Your task to perform on an android device: find photos in the google photos app Image 0: 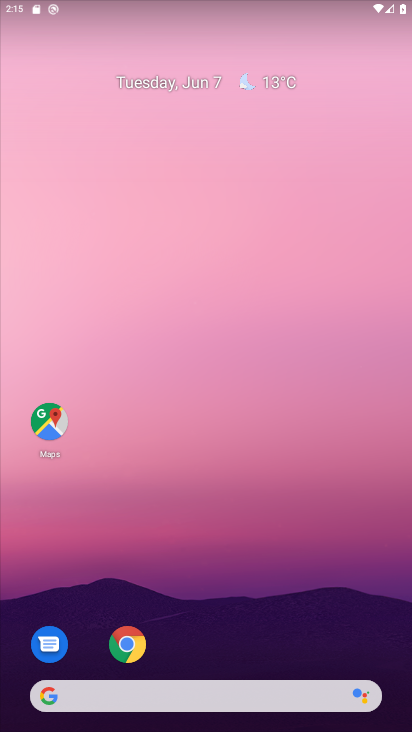
Step 0: press home button
Your task to perform on an android device: find photos in the google photos app Image 1: 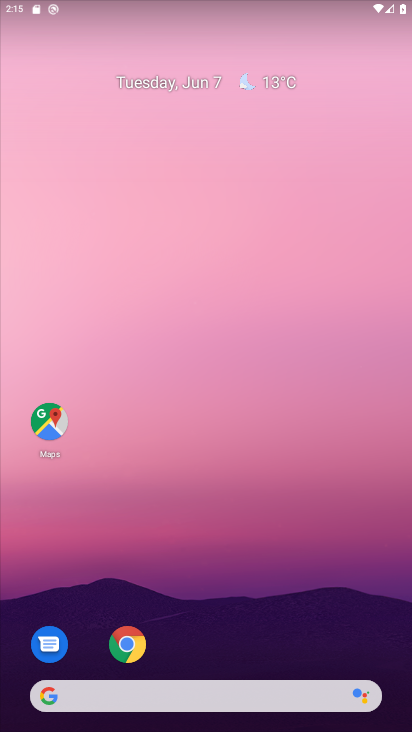
Step 1: drag from (224, 661) to (222, 43)
Your task to perform on an android device: find photos in the google photos app Image 2: 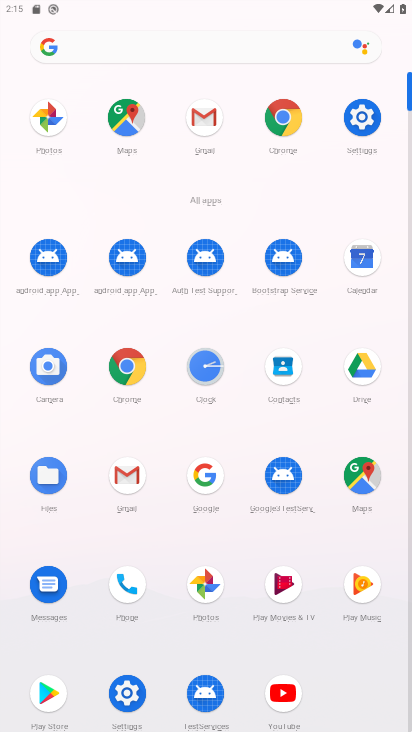
Step 2: click (199, 573)
Your task to perform on an android device: find photos in the google photos app Image 3: 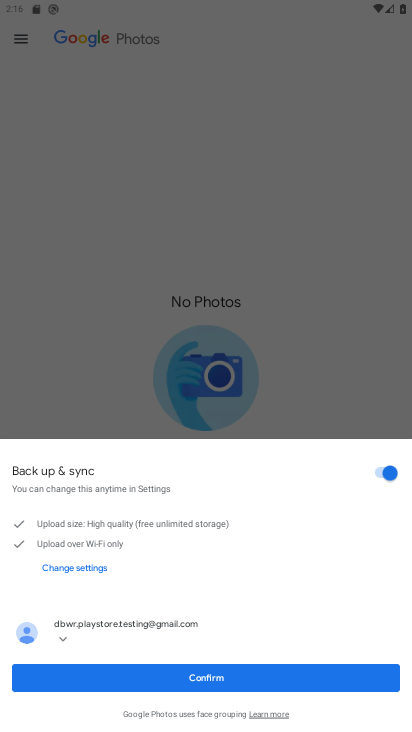
Step 3: click (213, 674)
Your task to perform on an android device: find photos in the google photos app Image 4: 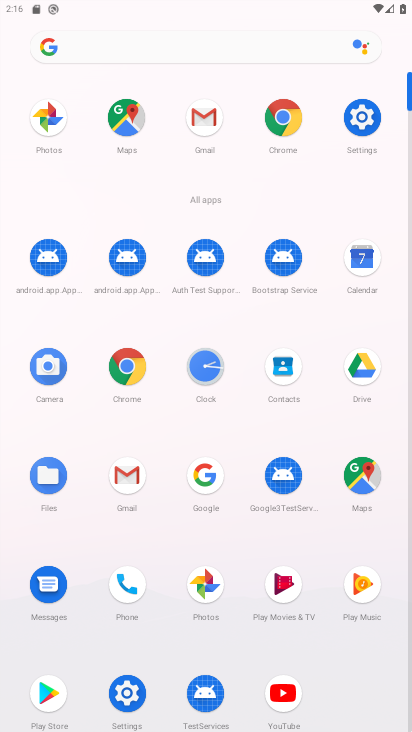
Step 4: click (206, 574)
Your task to perform on an android device: find photos in the google photos app Image 5: 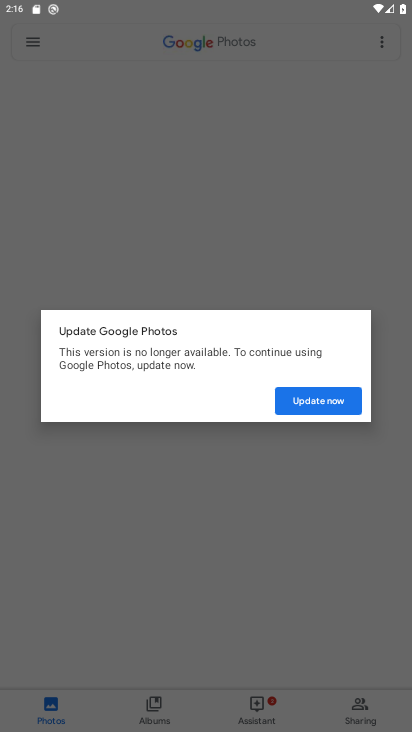
Step 5: click (300, 396)
Your task to perform on an android device: find photos in the google photos app Image 6: 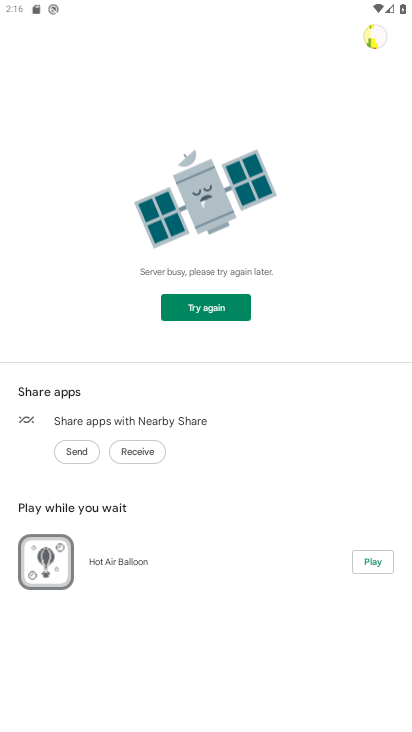
Step 6: click (209, 308)
Your task to perform on an android device: find photos in the google photos app Image 7: 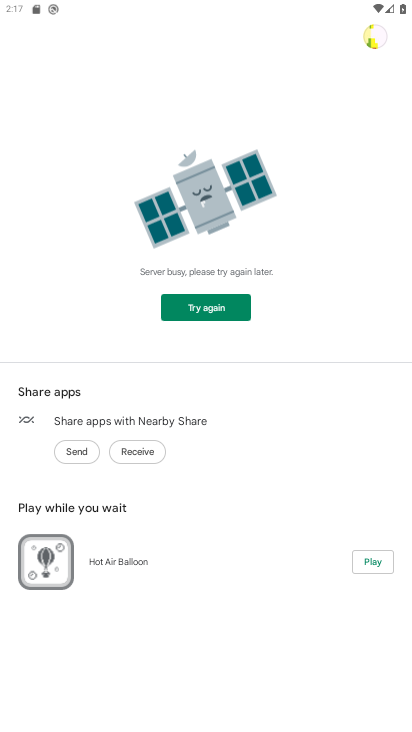
Step 7: task complete